Your task to perform on an android device: Open Amazon Image 0: 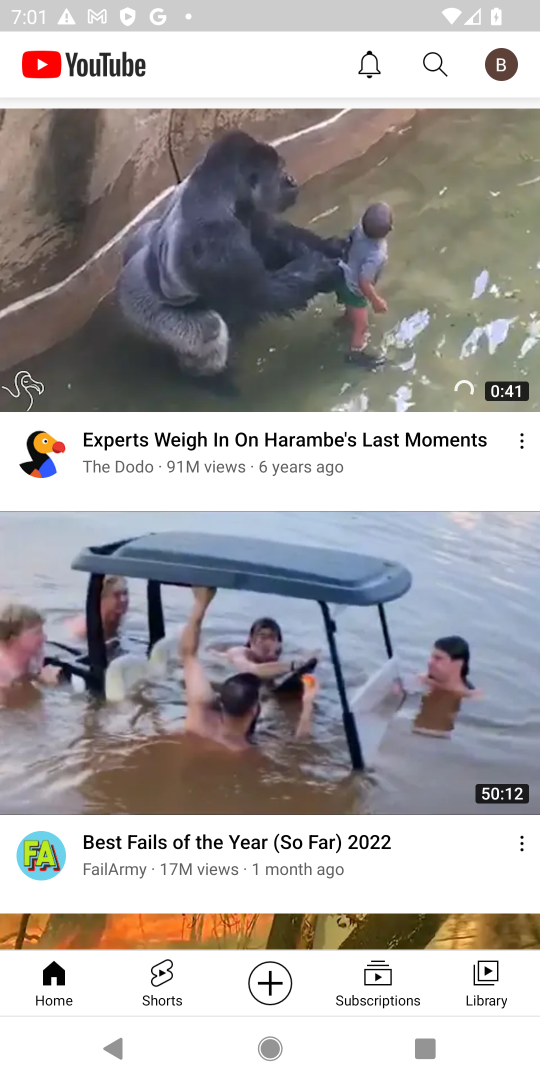
Step 0: press back button
Your task to perform on an android device: Open Amazon Image 1: 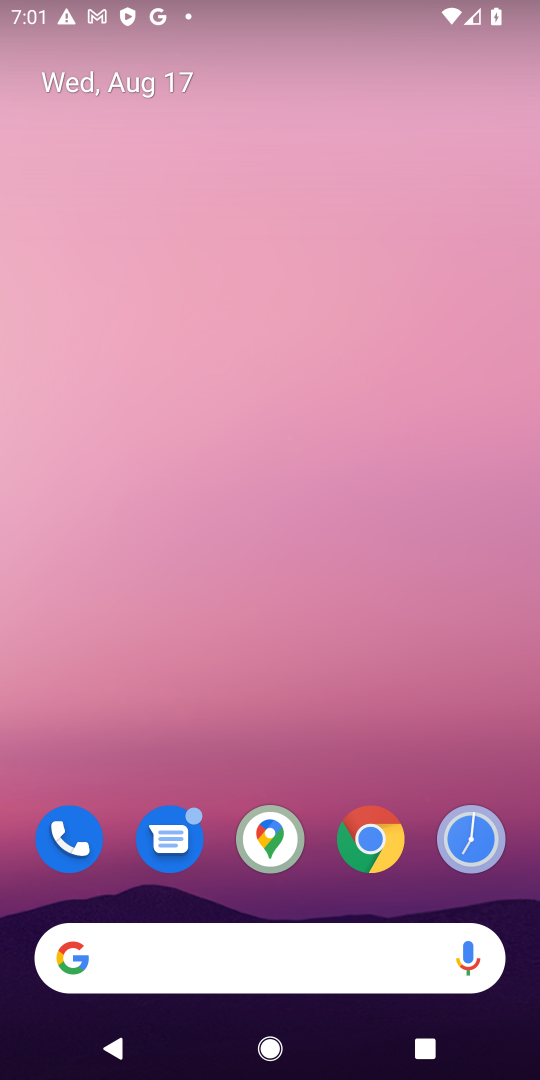
Step 1: click (315, 826)
Your task to perform on an android device: Open Amazon Image 2: 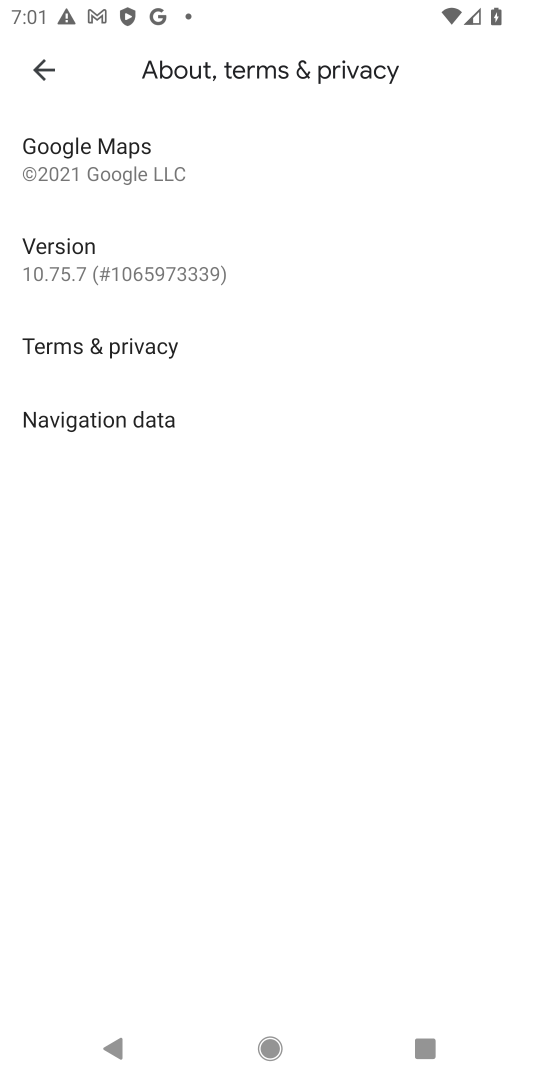
Step 2: press back button
Your task to perform on an android device: Open Amazon Image 3: 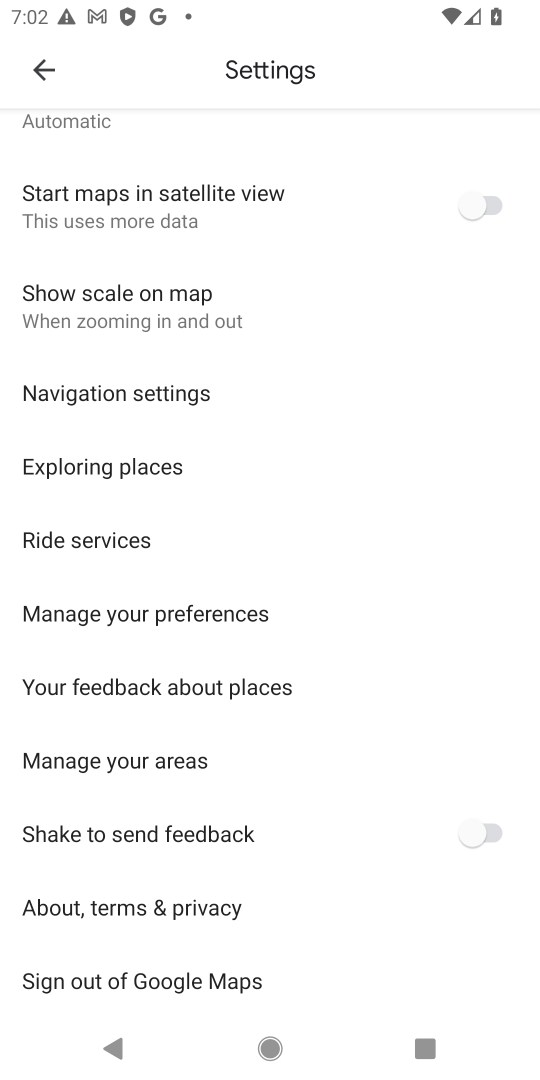
Step 3: press home button
Your task to perform on an android device: Open Amazon Image 4: 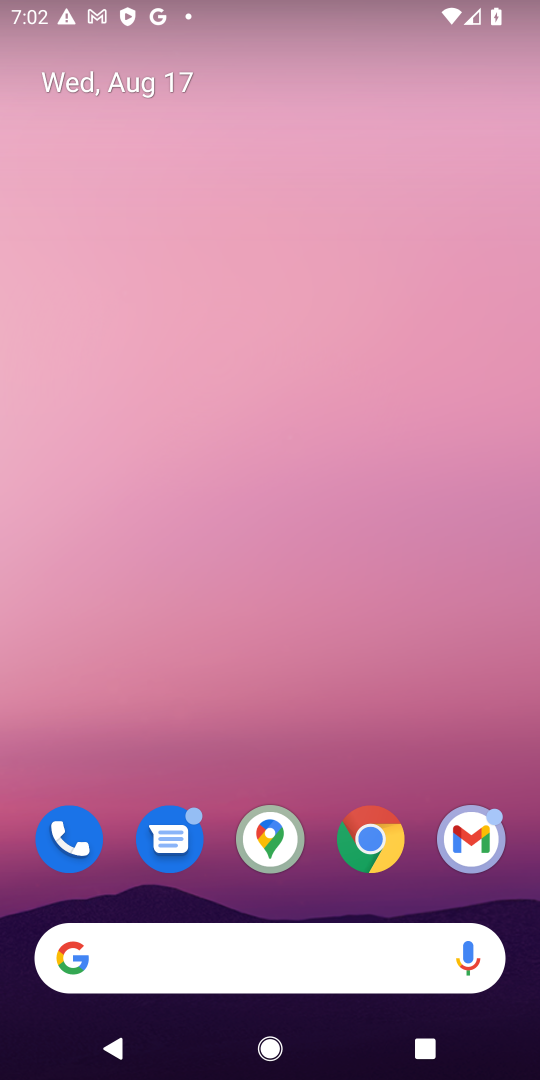
Step 4: drag from (283, 919) to (239, 103)
Your task to perform on an android device: Open Amazon Image 5: 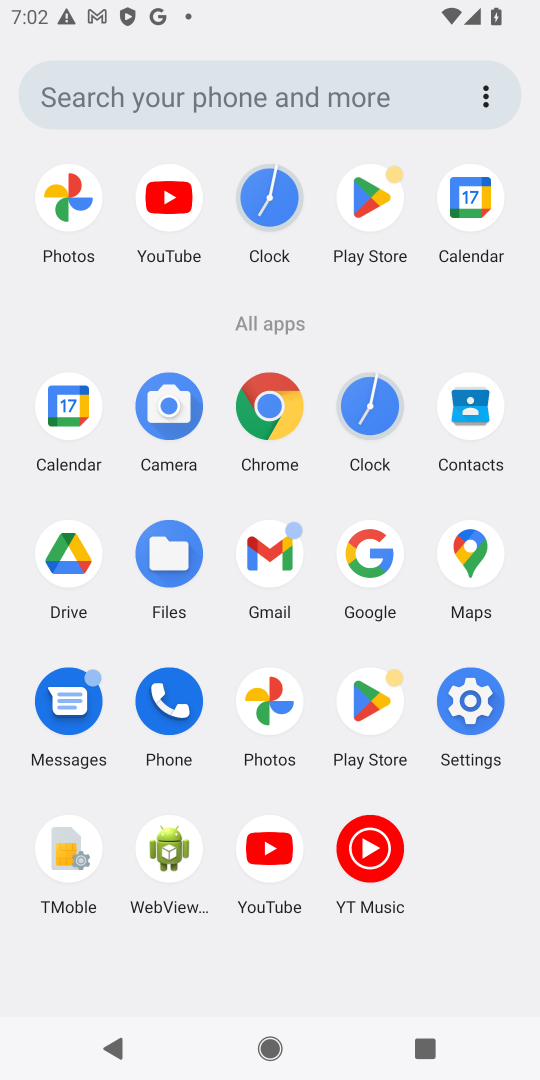
Step 5: click (260, 434)
Your task to perform on an android device: Open Amazon Image 6: 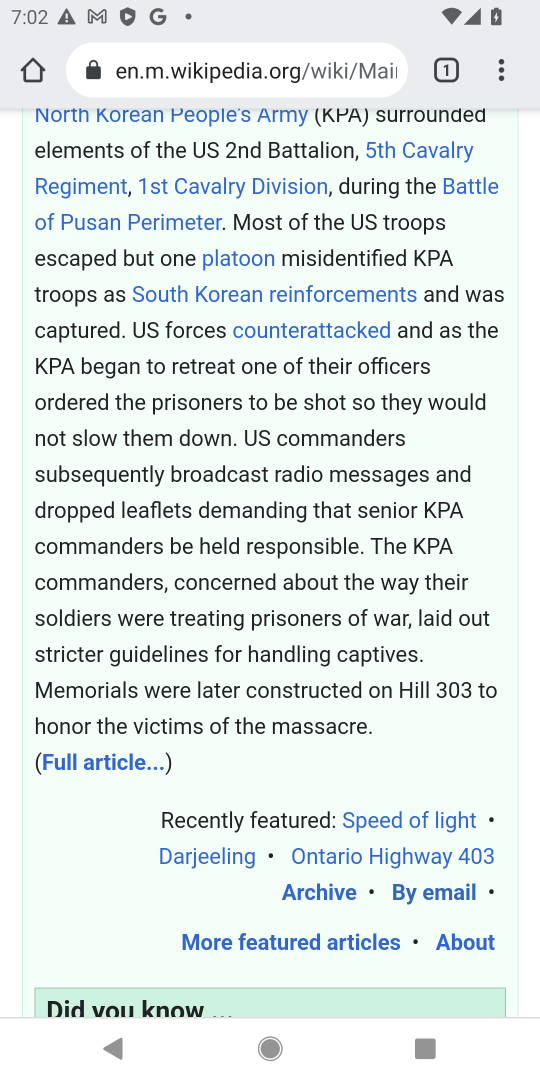
Step 6: drag from (378, 328) to (348, 1058)
Your task to perform on an android device: Open Amazon Image 7: 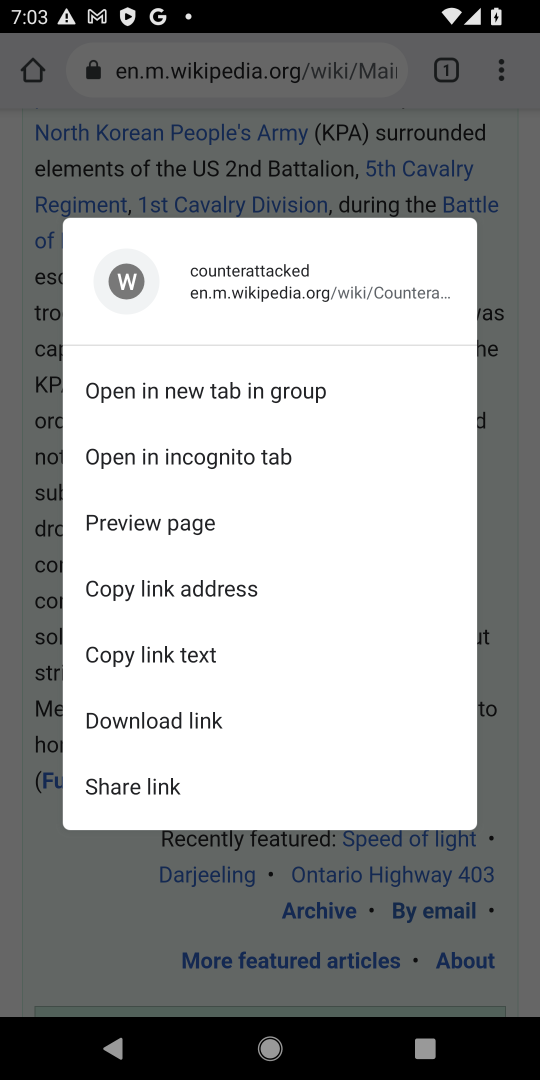
Step 7: click (386, 188)
Your task to perform on an android device: Open Amazon Image 8: 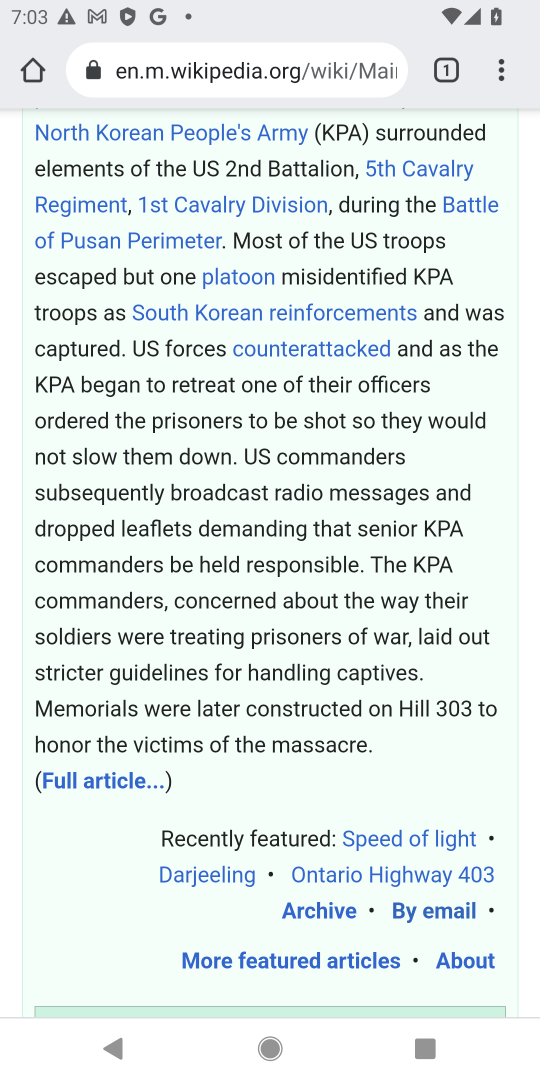
Step 8: click (446, 67)
Your task to perform on an android device: Open Amazon Image 9: 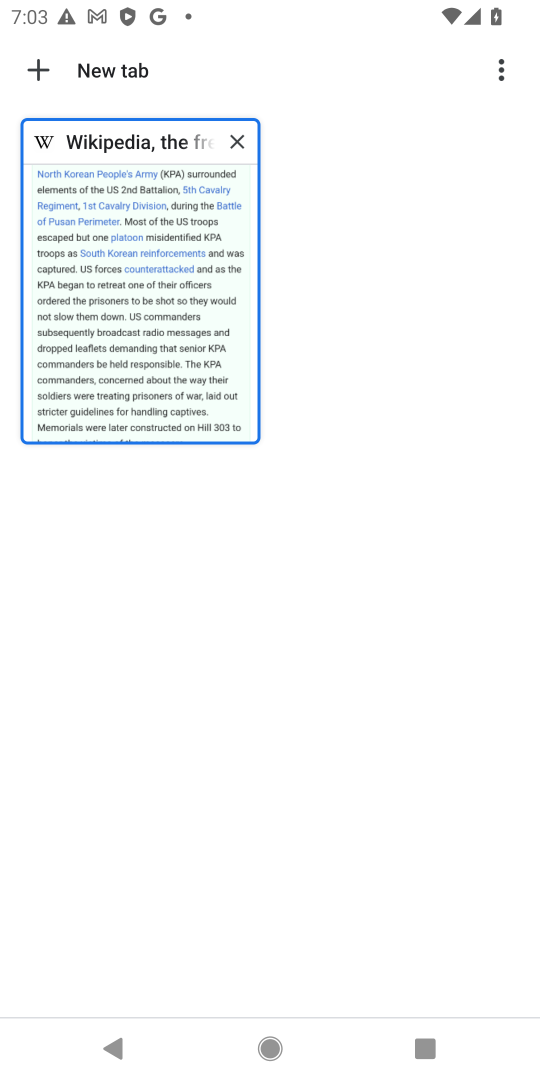
Step 9: click (42, 63)
Your task to perform on an android device: Open Amazon Image 10: 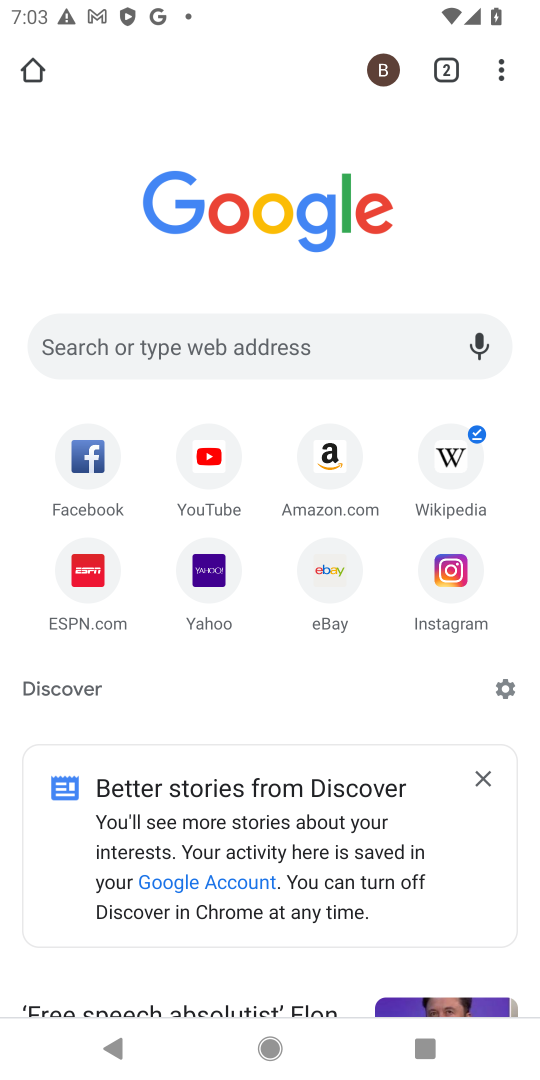
Step 10: click (327, 470)
Your task to perform on an android device: Open Amazon Image 11: 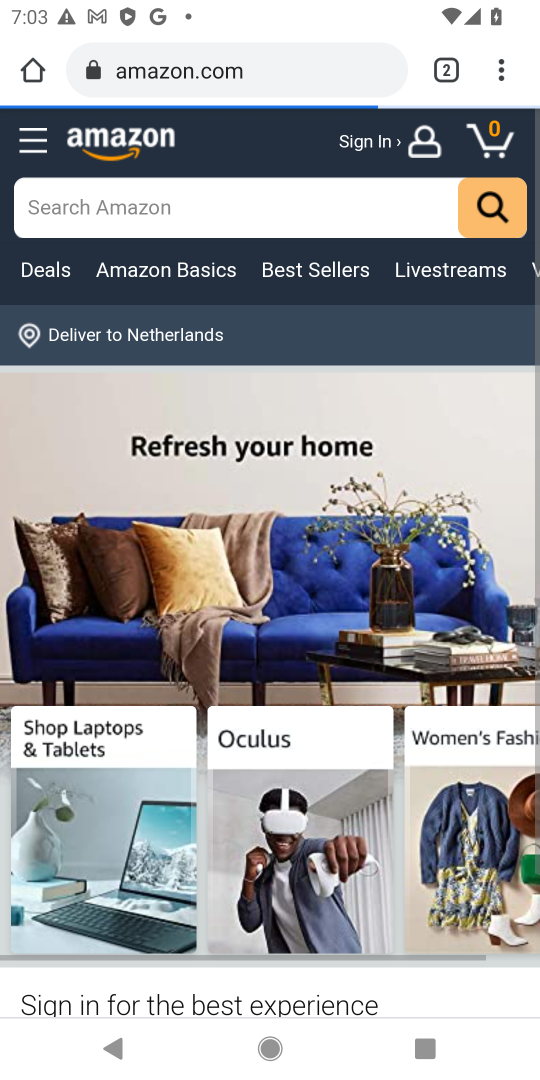
Step 11: task complete